Your task to perform on an android device: change the clock display to digital Image 0: 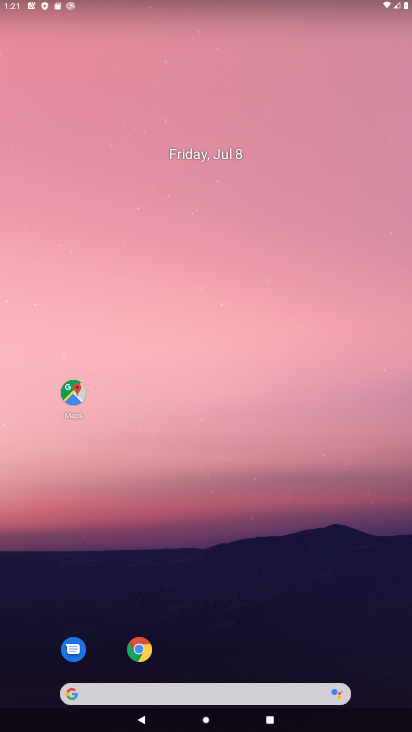
Step 0: drag from (194, 325) to (260, 164)
Your task to perform on an android device: change the clock display to digital Image 1: 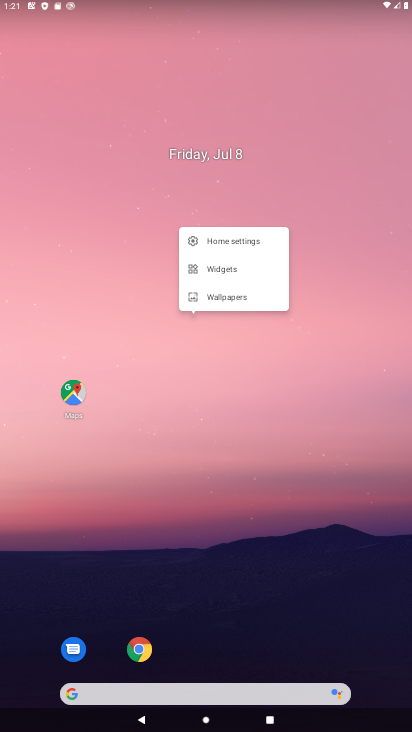
Step 1: drag from (88, 514) to (301, 20)
Your task to perform on an android device: change the clock display to digital Image 2: 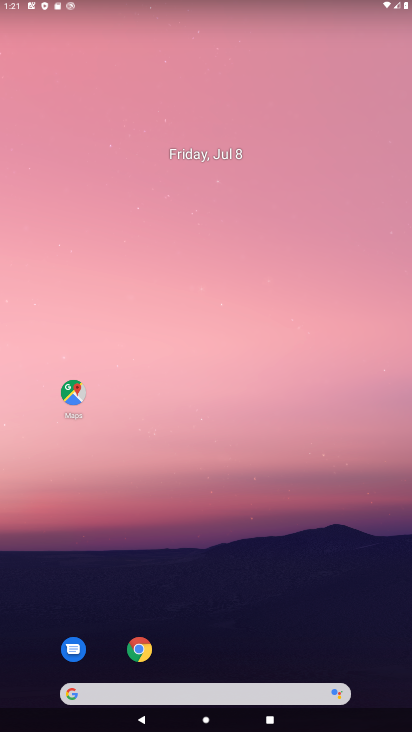
Step 2: drag from (3, 668) to (399, 7)
Your task to perform on an android device: change the clock display to digital Image 3: 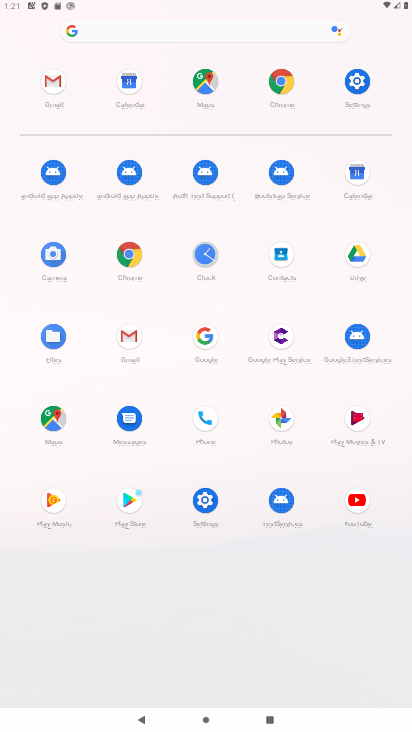
Step 3: click (194, 267)
Your task to perform on an android device: change the clock display to digital Image 4: 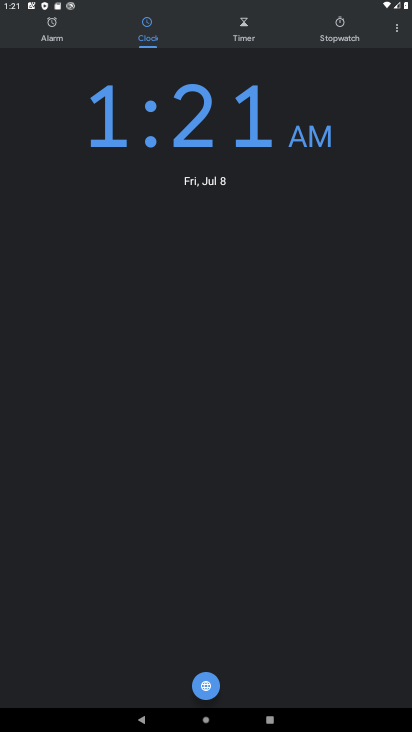
Step 4: click (390, 29)
Your task to perform on an android device: change the clock display to digital Image 5: 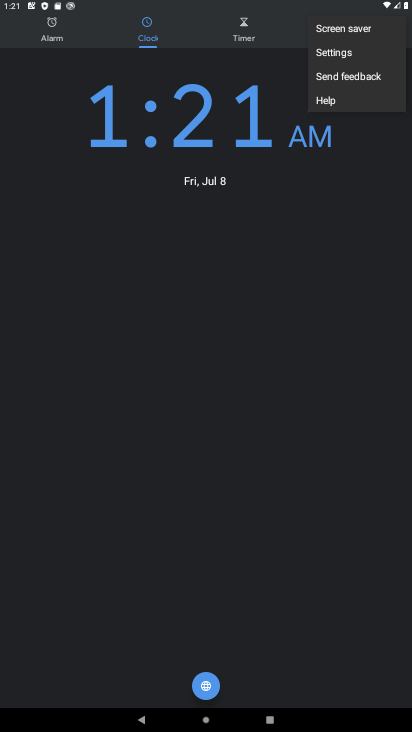
Step 5: click (321, 52)
Your task to perform on an android device: change the clock display to digital Image 6: 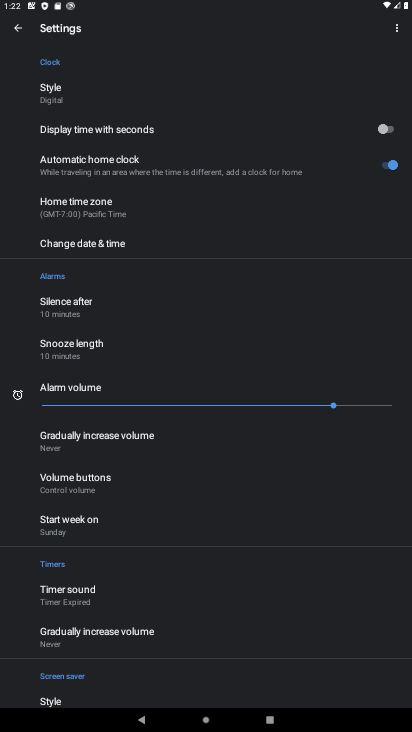
Step 6: click (60, 101)
Your task to perform on an android device: change the clock display to digital Image 7: 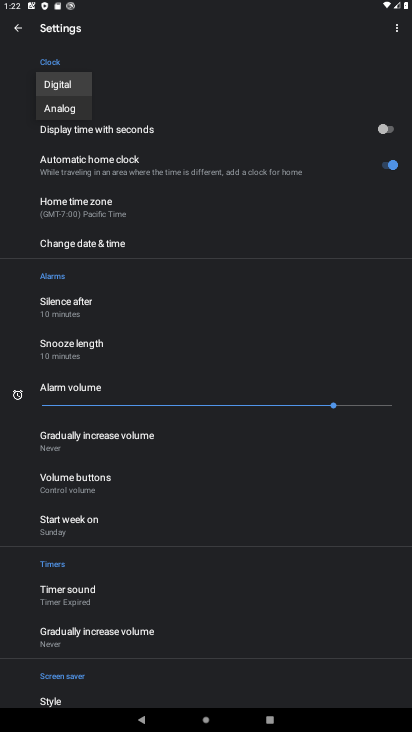
Step 7: click (65, 84)
Your task to perform on an android device: change the clock display to digital Image 8: 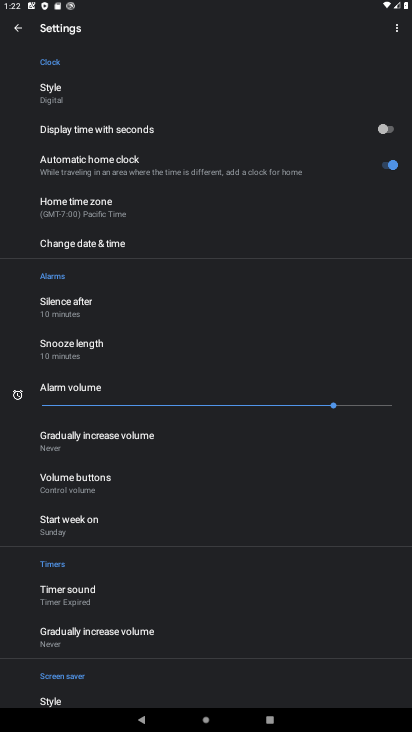
Step 8: task complete